Your task to perform on an android device: delete browsing data in the chrome app Image 0: 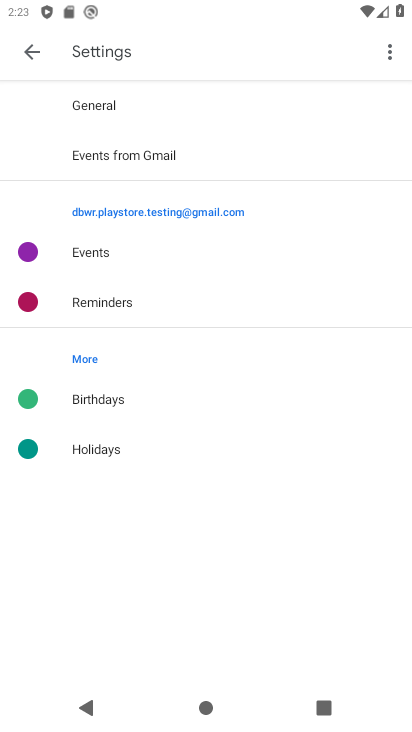
Step 0: press home button
Your task to perform on an android device: delete browsing data in the chrome app Image 1: 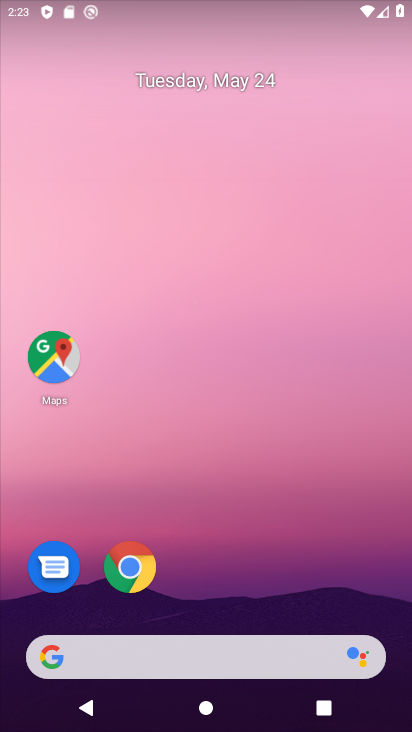
Step 1: click (134, 552)
Your task to perform on an android device: delete browsing data in the chrome app Image 2: 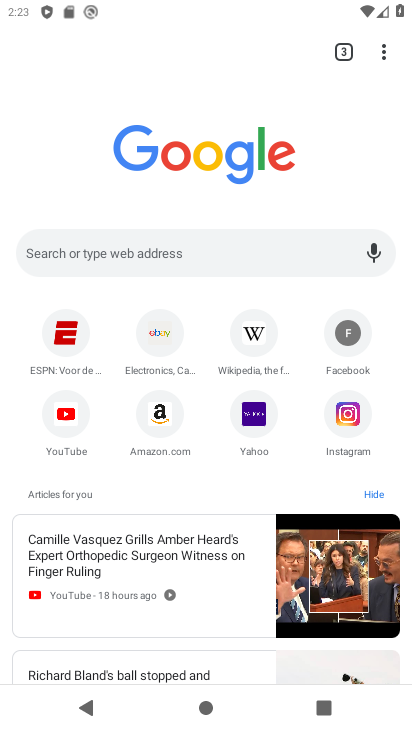
Step 2: drag from (382, 41) to (180, 288)
Your task to perform on an android device: delete browsing data in the chrome app Image 3: 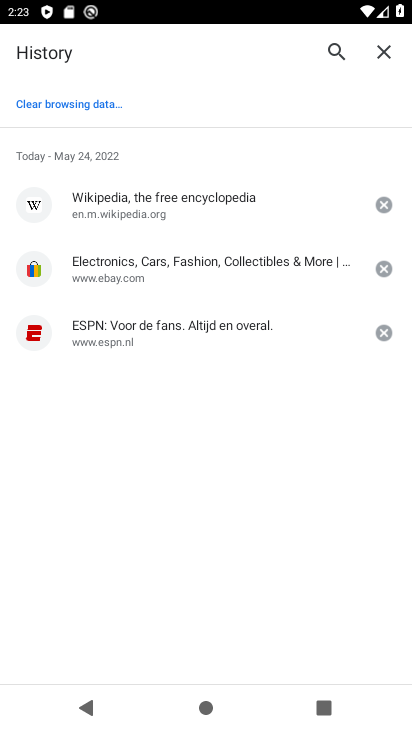
Step 3: click (77, 103)
Your task to perform on an android device: delete browsing data in the chrome app Image 4: 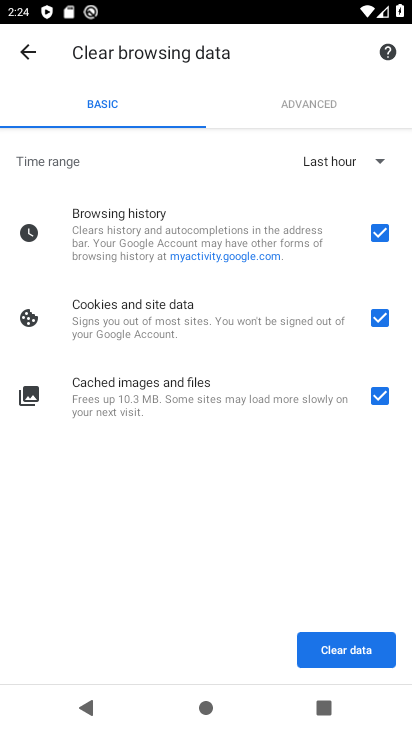
Step 4: click (369, 643)
Your task to perform on an android device: delete browsing data in the chrome app Image 5: 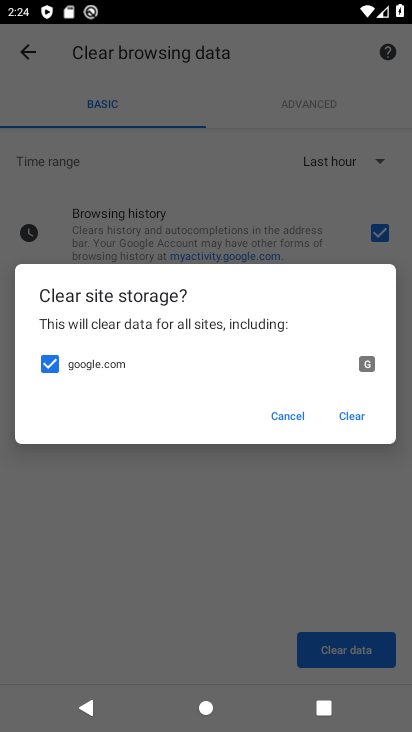
Step 5: click (340, 413)
Your task to perform on an android device: delete browsing data in the chrome app Image 6: 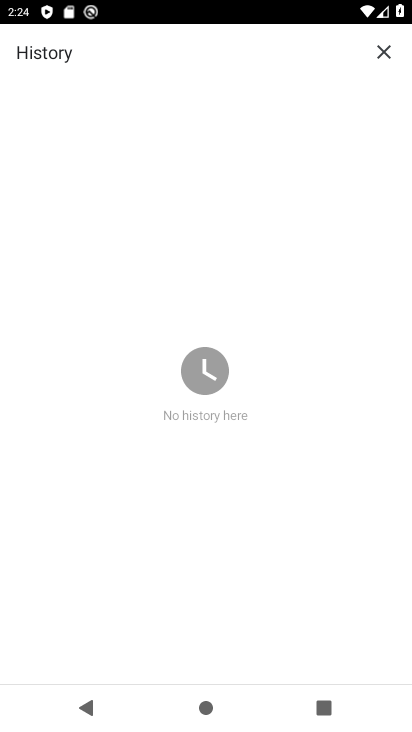
Step 6: task complete